Your task to perform on an android device: turn off translation in the chrome app Image 0: 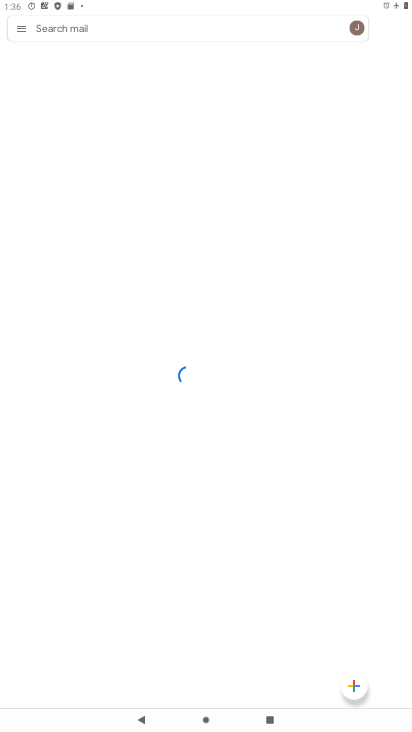
Step 0: press home button
Your task to perform on an android device: turn off translation in the chrome app Image 1: 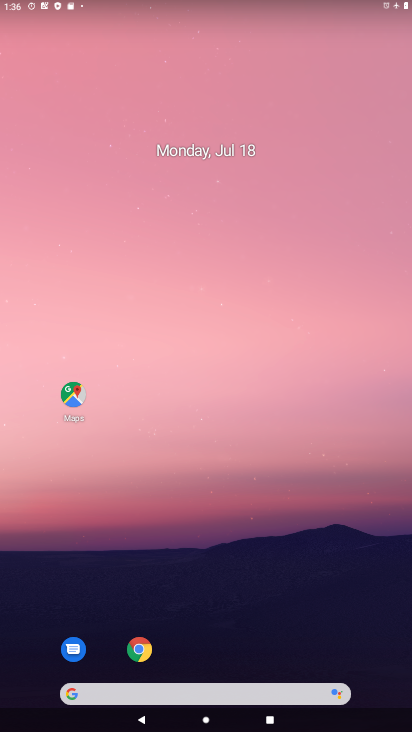
Step 1: click (141, 653)
Your task to perform on an android device: turn off translation in the chrome app Image 2: 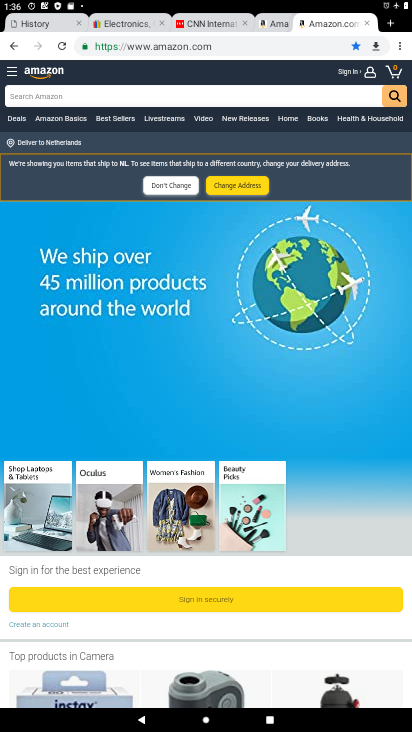
Step 2: click (403, 53)
Your task to perform on an android device: turn off translation in the chrome app Image 3: 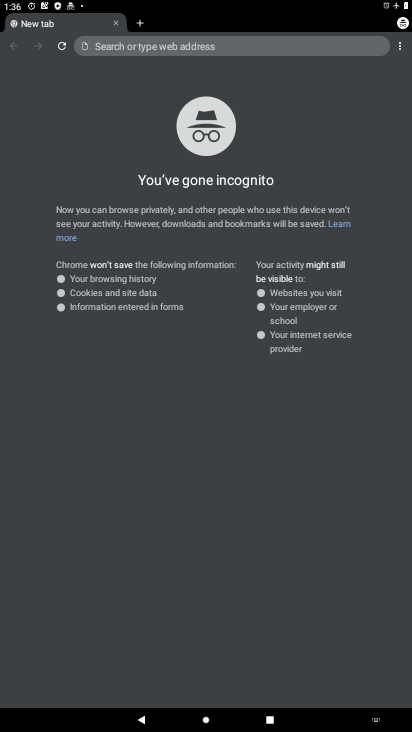
Step 3: drag from (398, 49) to (330, 182)
Your task to perform on an android device: turn off translation in the chrome app Image 4: 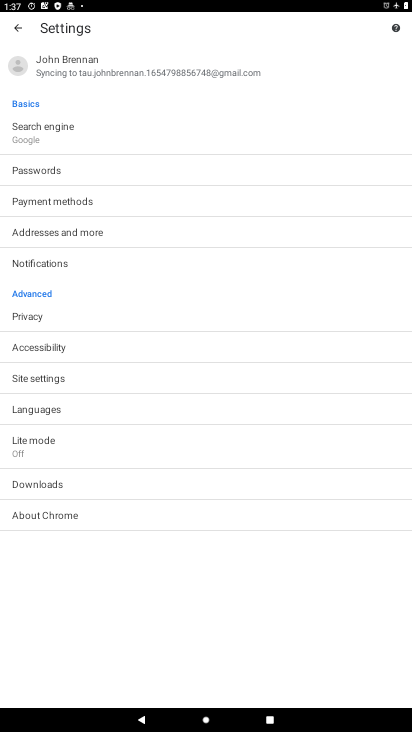
Step 4: click (42, 402)
Your task to perform on an android device: turn off translation in the chrome app Image 5: 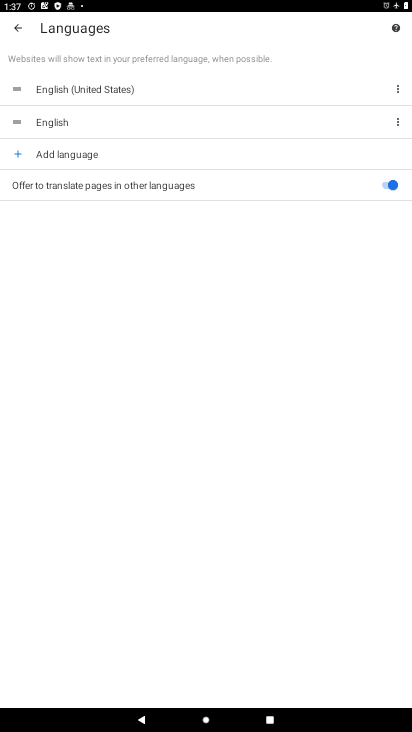
Step 5: click (392, 187)
Your task to perform on an android device: turn off translation in the chrome app Image 6: 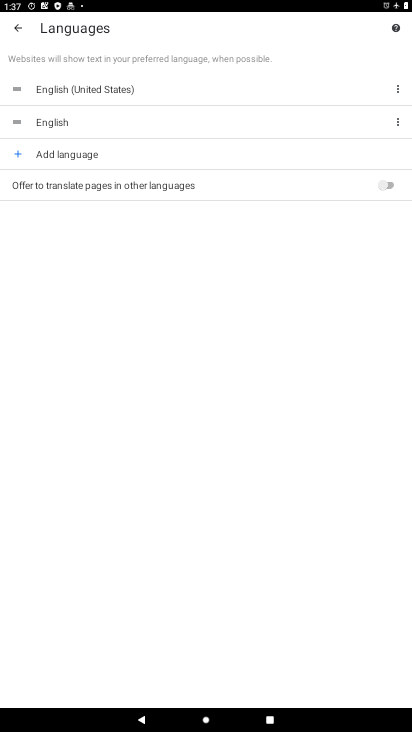
Step 6: task complete